Your task to perform on an android device: Open sound settings Image 0: 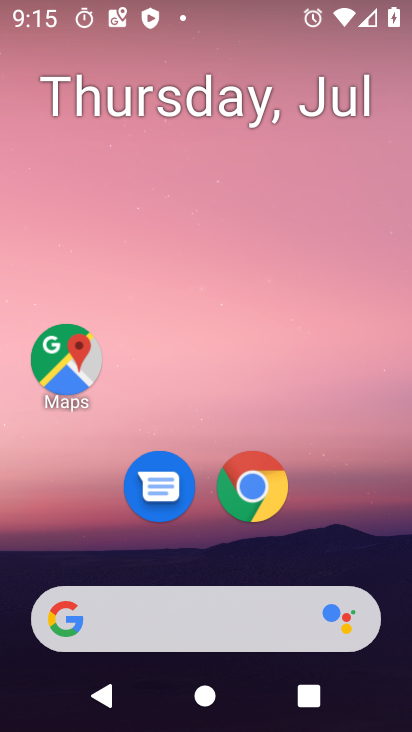
Step 0: drag from (226, 537) to (268, 171)
Your task to perform on an android device: Open sound settings Image 1: 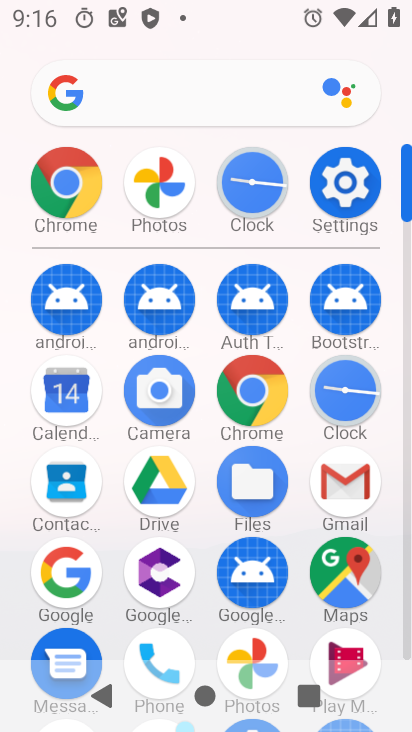
Step 1: click (340, 198)
Your task to perform on an android device: Open sound settings Image 2: 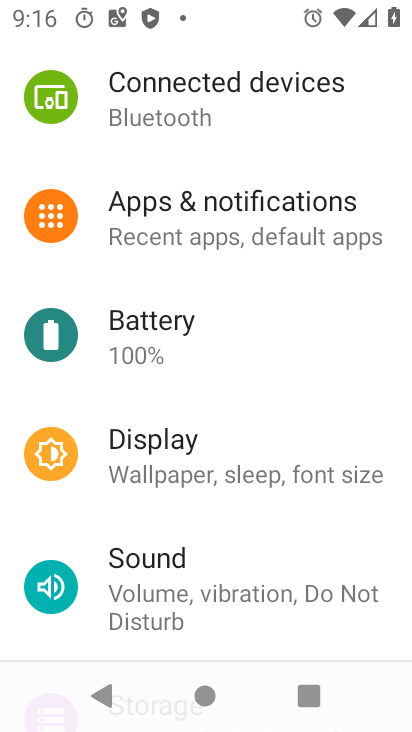
Step 2: click (159, 611)
Your task to perform on an android device: Open sound settings Image 3: 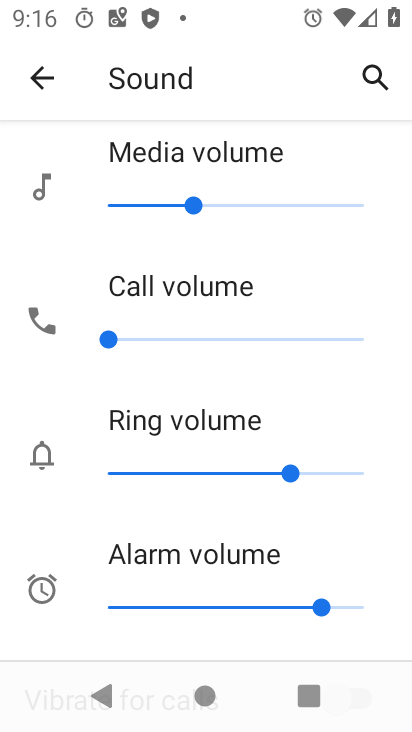
Step 3: task complete